Your task to perform on an android device: turn off data saver in the chrome app Image 0: 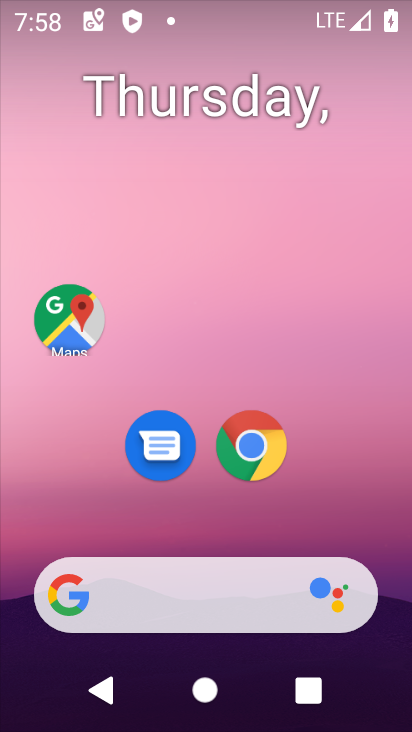
Step 0: drag from (195, 500) to (261, 123)
Your task to perform on an android device: turn off data saver in the chrome app Image 1: 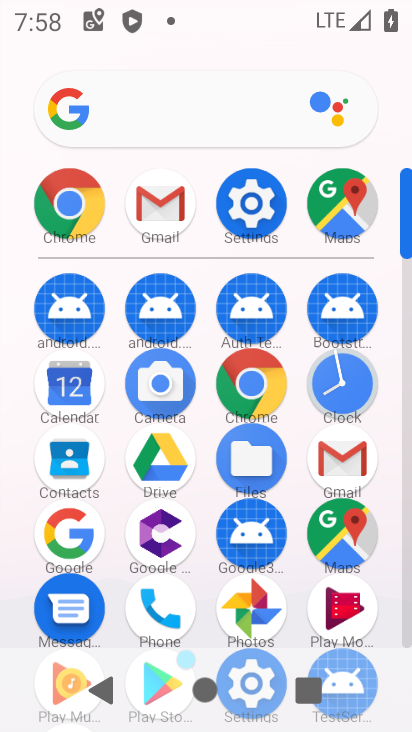
Step 1: click (248, 378)
Your task to perform on an android device: turn off data saver in the chrome app Image 2: 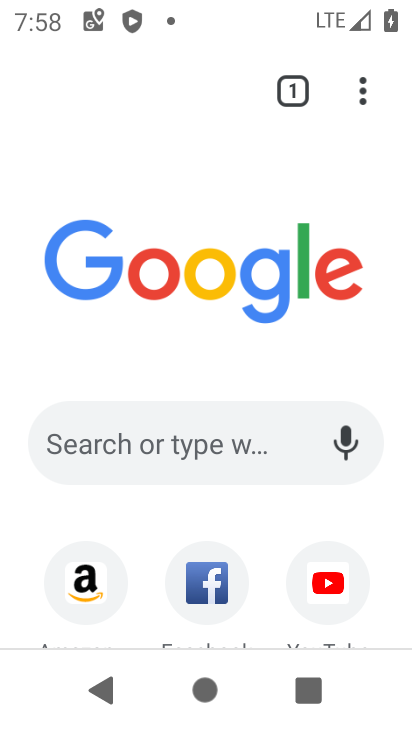
Step 2: click (366, 104)
Your task to perform on an android device: turn off data saver in the chrome app Image 3: 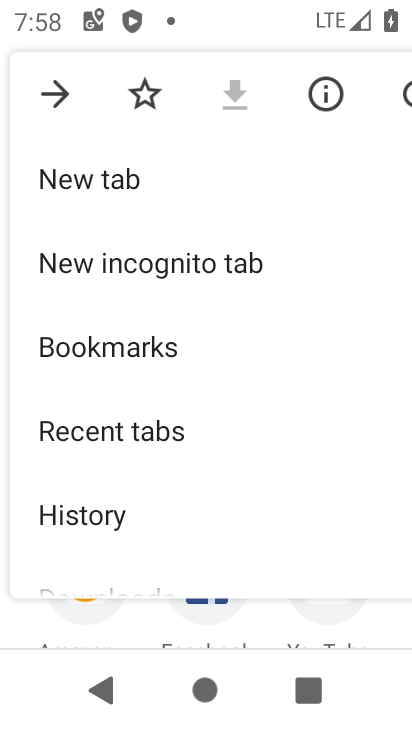
Step 3: drag from (240, 469) to (363, 11)
Your task to perform on an android device: turn off data saver in the chrome app Image 4: 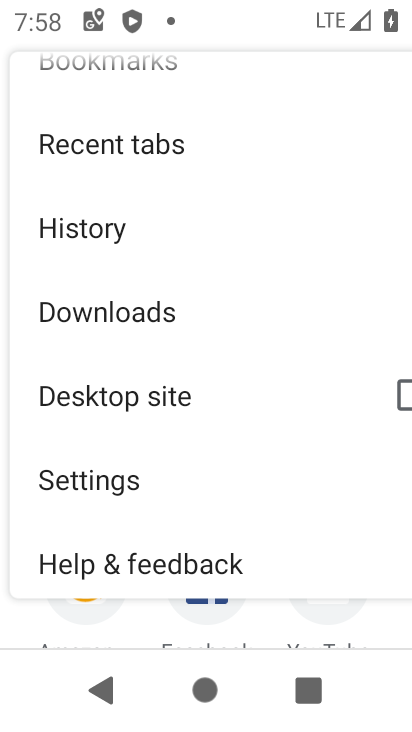
Step 4: click (137, 484)
Your task to perform on an android device: turn off data saver in the chrome app Image 5: 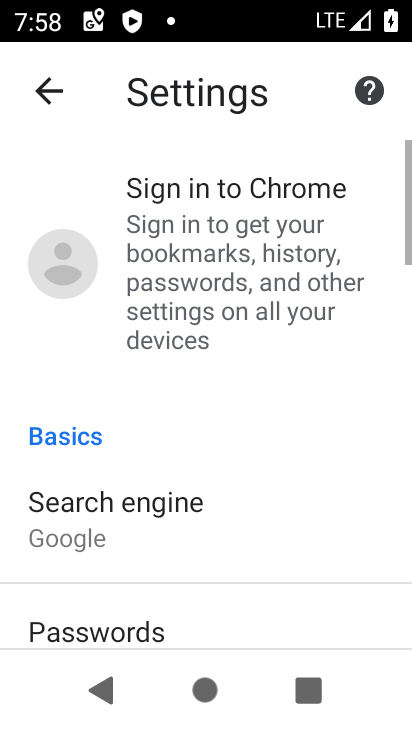
Step 5: drag from (220, 577) to (351, 73)
Your task to perform on an android device: turn off data saver in the chrome app Image 6: 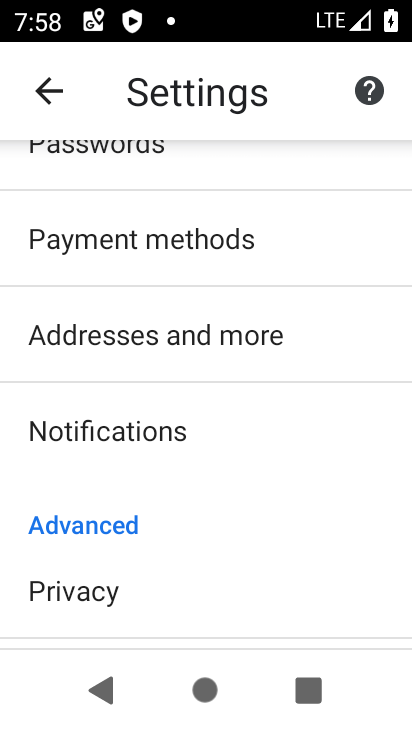
Step 6: drag from (181, 614) to (329, 151)
Your task to perform on an android device: turn off data saver in the chrome app Image 7: 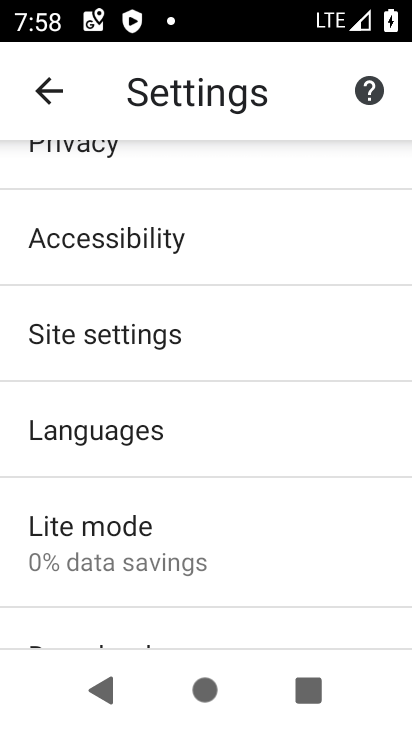
Step 7: click (157, 554)
Your task to perform on an android device: turn off data saver in the chrome app Image 8: 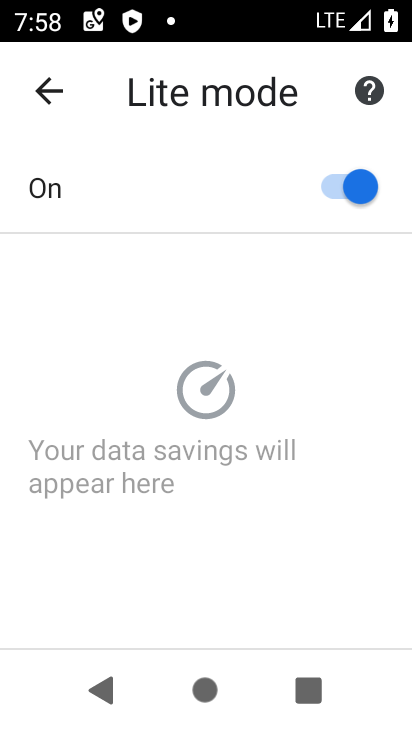
Step 8: click (359, 171)
Your task to perform on an android device: turn off data saver in the chrome app Image 9: 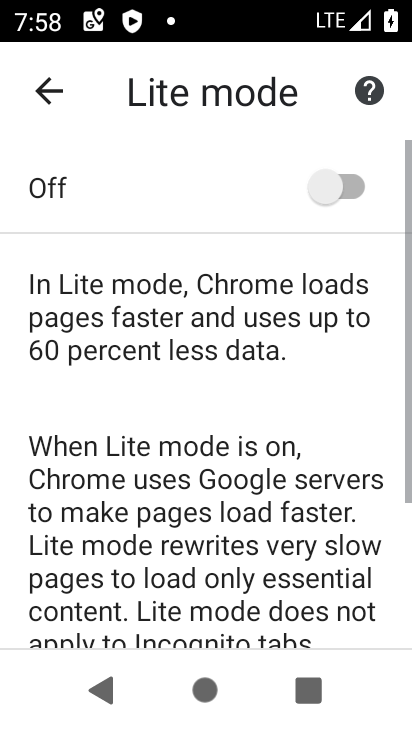
Step 9: task complete